Your task to perform on an android device: open app "ZOOM Cloud Meetings" Image 0: 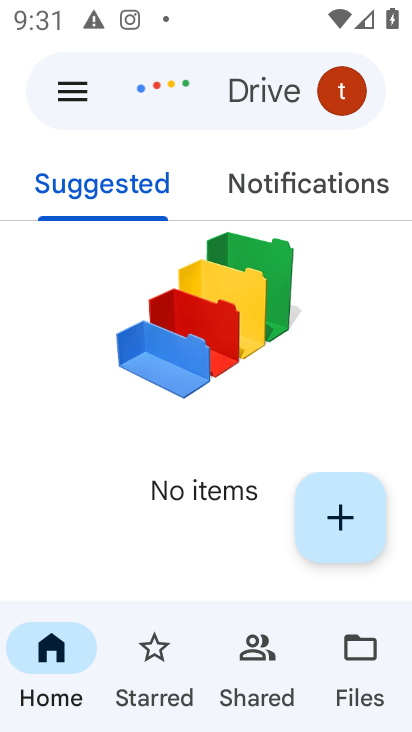
Step 0: press home button
Your task to perform on an android device: open app "ZOOM Cloud Meetings" Image 1: 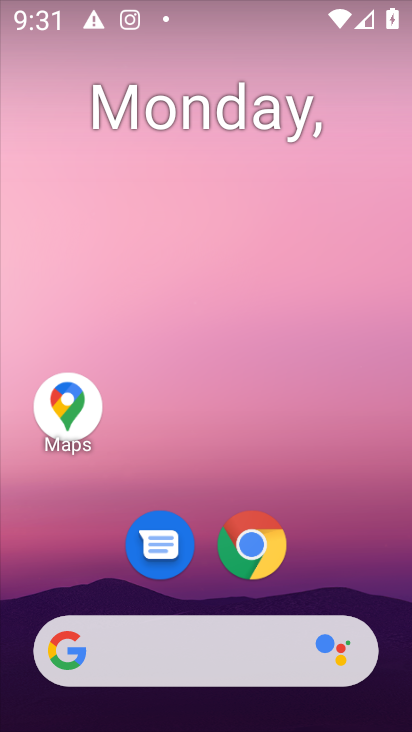
Step 1: drag from (361, 582) to (373, 52)
Your task to perform on an android device: open app "ZOOM Cloud Meetings" Image 2: 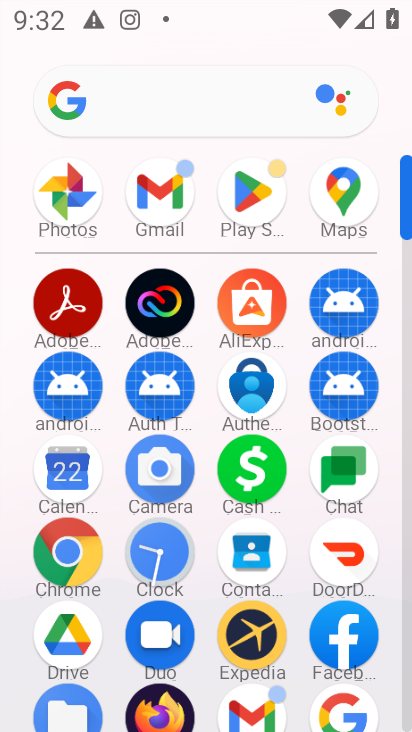
Step 2: click (259, 192)
Your task to perform on an android device: open app "ZOOM Cloud Meetings" Image 3: 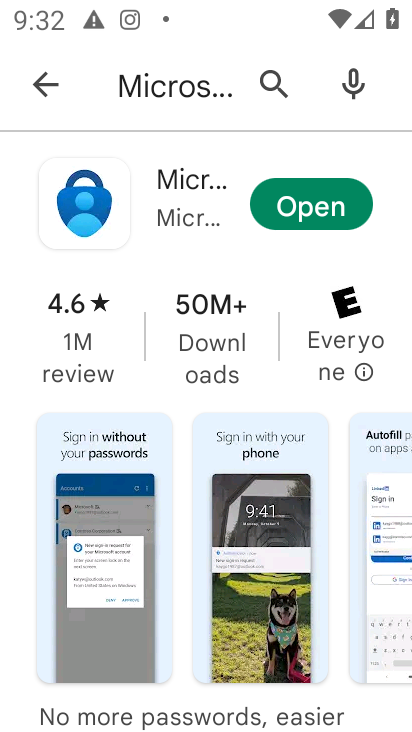
Step 3: press back button
Your task to perform on an android device: open app "ZOOM Cloud Meetings" Image 4: 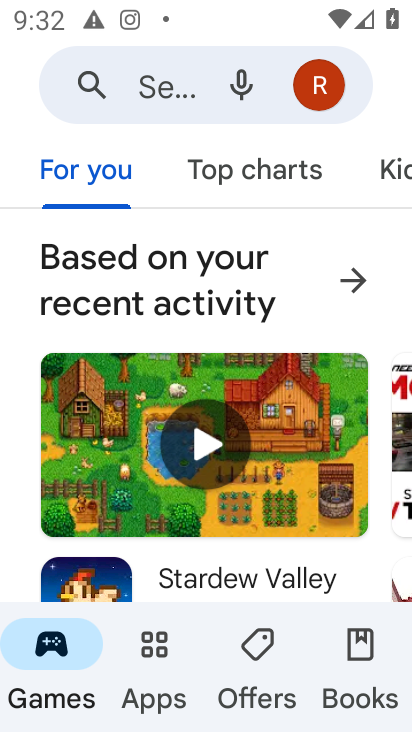
Step 4: click (161, 90)
Your task to perform on an android device: open app "ZOOM Cloud Meetings" Image 5: 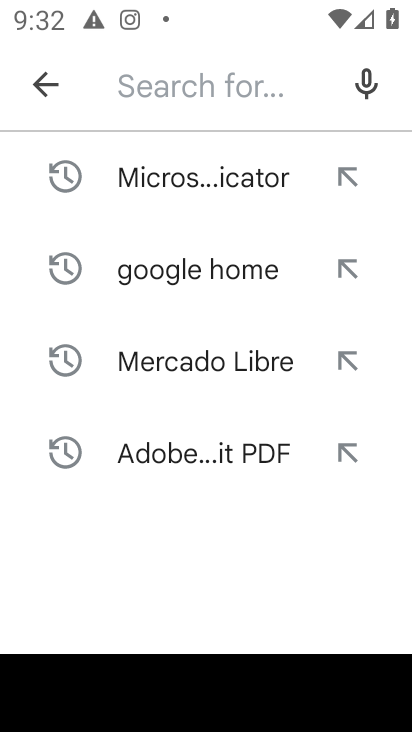
Step 5: type "ZOOM Cloud Meetings"
Your task to perform on an android device: open app "ZOOM Cloud Meetings" Image 6: 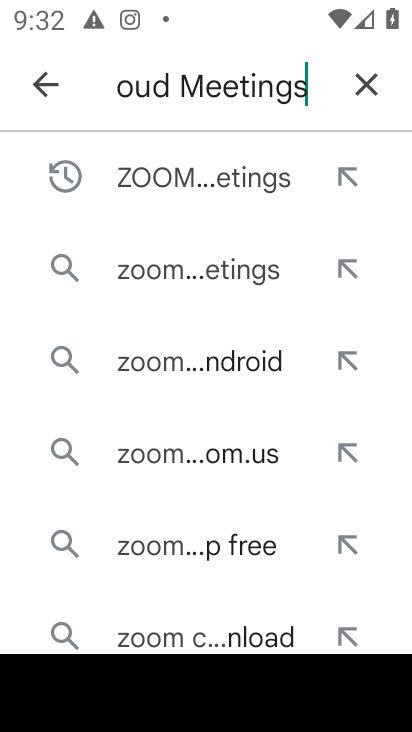
Step 6: press enter
Your task to perform on an android device: open app "ZOOM Cloud Meetings" Image 7: 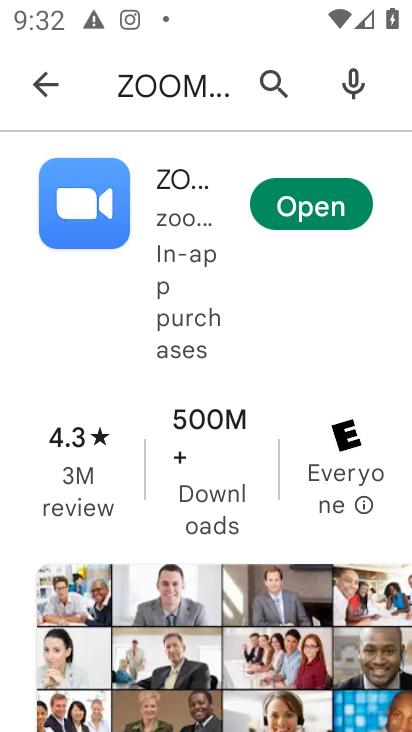
Step 7: click (326, 212)
Your task to perform on an android device: open app "ZOOM Cloud Meetings" Image 8: 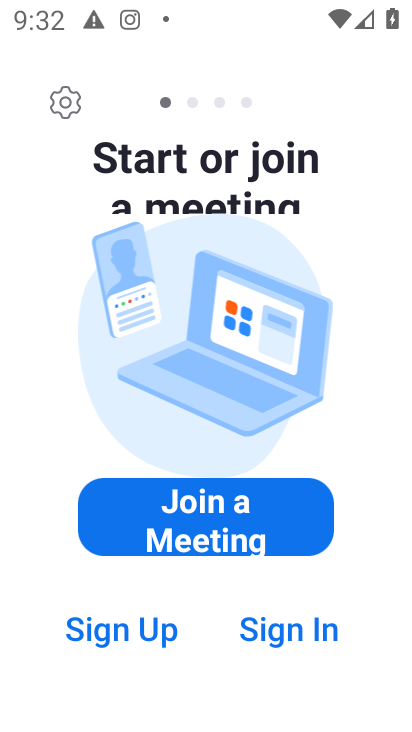
Step 8: task complete